Your task to perform on an android device: Open the calendar app, open the side menu, and click the "Day" option Image 0: 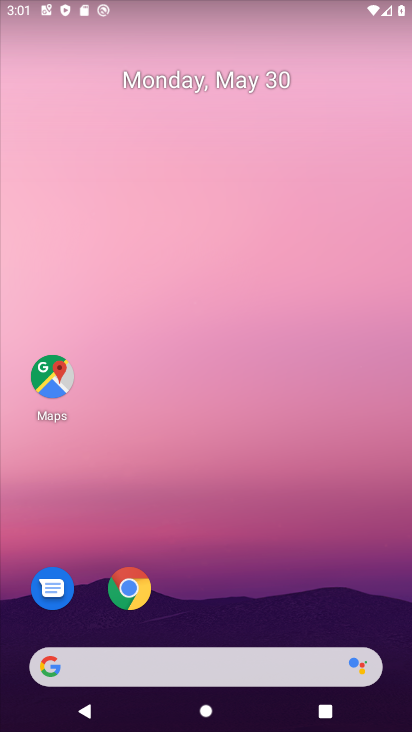
Step 0: drag from (251, 557) to (237, 21)
Your task to perform on an android device: Open the calendar app, open the side menu, and click the "Day" option Image 1: 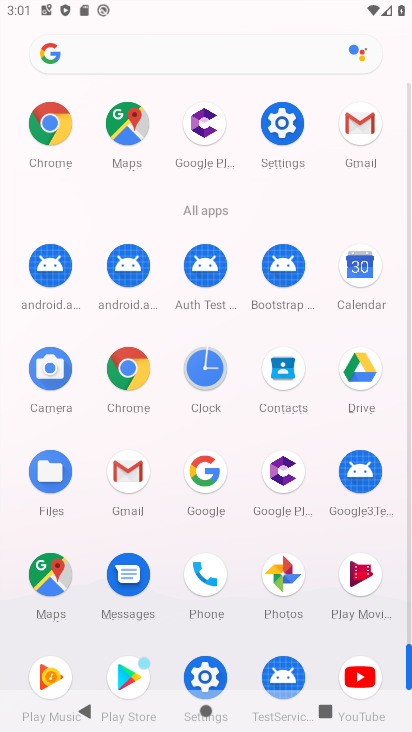
Step 1: drag from (17, 528) to (24, 200)
Your task to perform on an android device: Open the calendar app, open the side menu, and click the "Day" option Image 2: 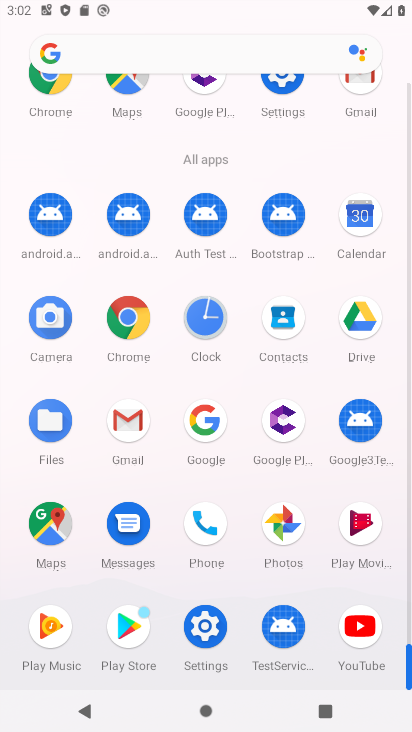
Step 2: drag from (18, 567) to (23, 277)
Your task to perform on an android device: Open the calendar app, open the side menu, and click the "Day" option Image 3: 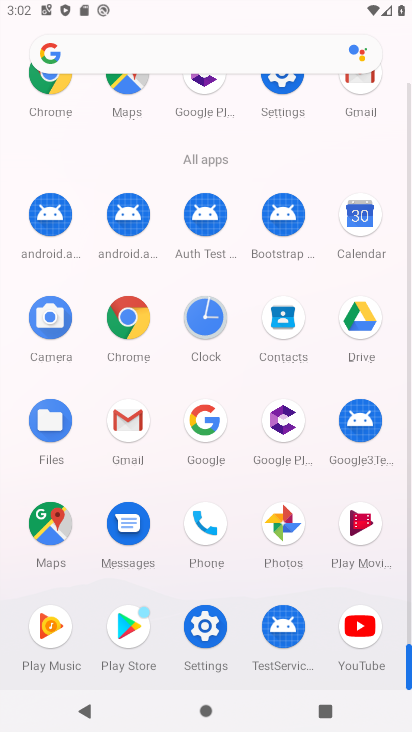
Step 3: click (359, 216)
Your task to perform on an android device: Open the calendar app, open the side menu, and click the "Day" option Image 4: 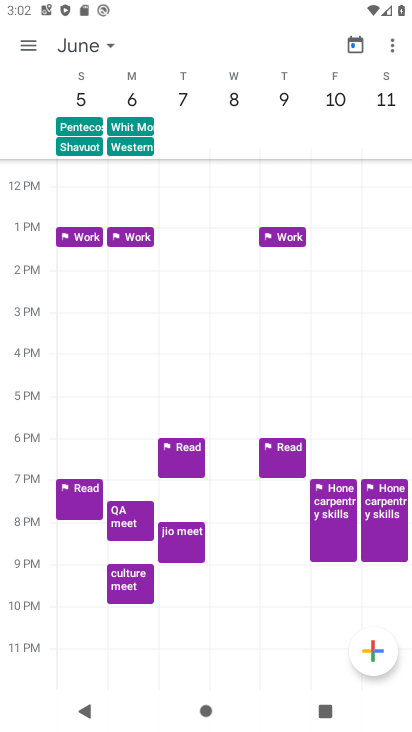
Step 4: click (26, 51)
Your task to perform on an android device: Open the calendar app, open the side menu, and click the "Day" option Image 5: 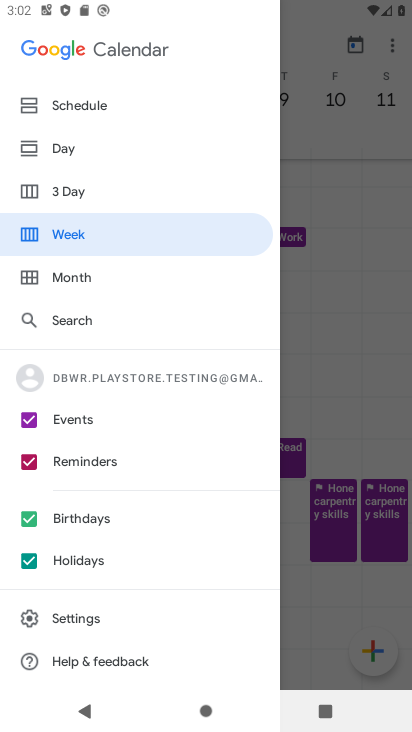
Step 5: click (73, 145)
Your task to perform on an android device: Open the calendar app, open the side menu, and click the "Day" option Image 6: 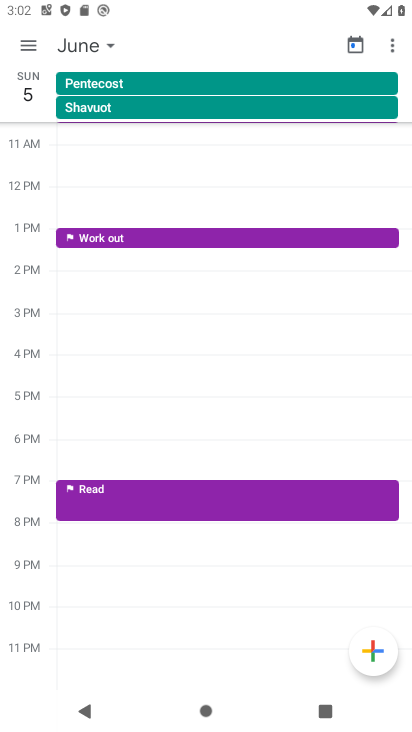
Step 6: click (24, 38)
Your task to perform on an android device: Open the calendar app, open the side menu, and click the "Day" option Image 7: 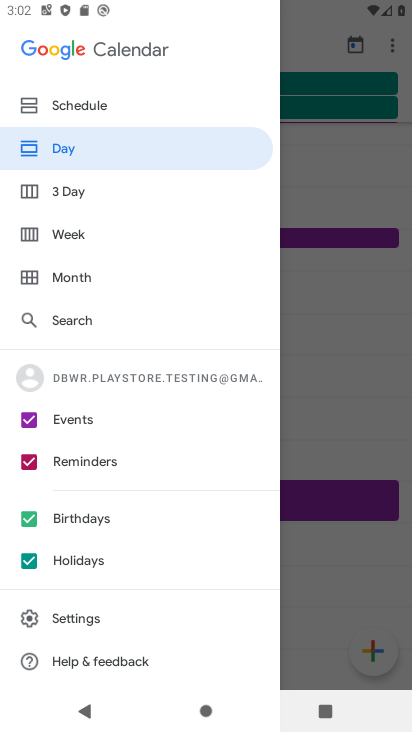
Step 7: click (101, 146)
Your task to perform on an android device: Open the calendar app, open the side menu, and click the "Day" option Image 8: 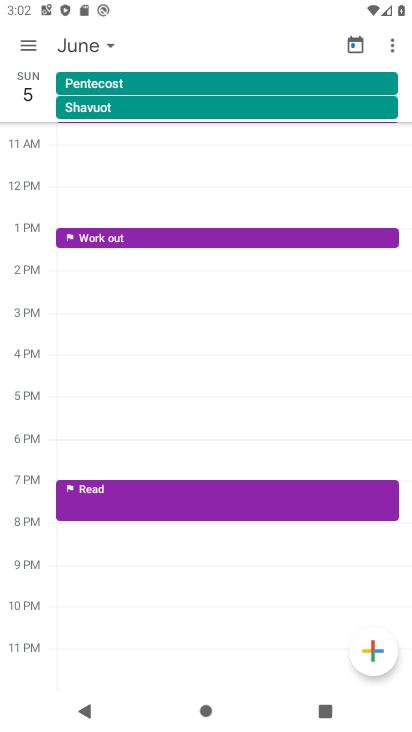
Step 8: click (355, 41)
Your task to perform on an android device: Open the calendar app, open the side menu, and click the "Day" option Image 9: 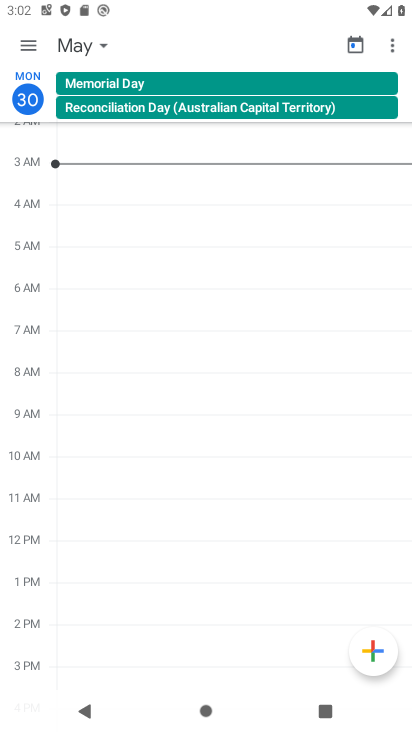
Step 9: click (24, 40)
Your task to perform on an android device: Open the calendar app, open the side menu, and click the "Day" option Image 10: 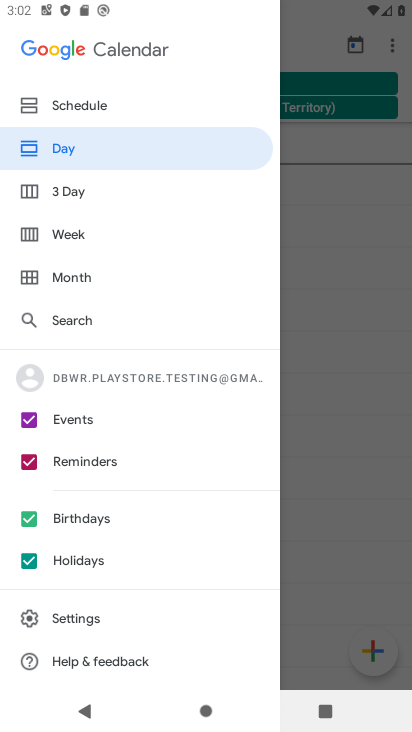
Step 10: click (63, 151)
Your task to perform on an android device: Open the calendar app, open the side menu, and click the "Day" option Image 11: 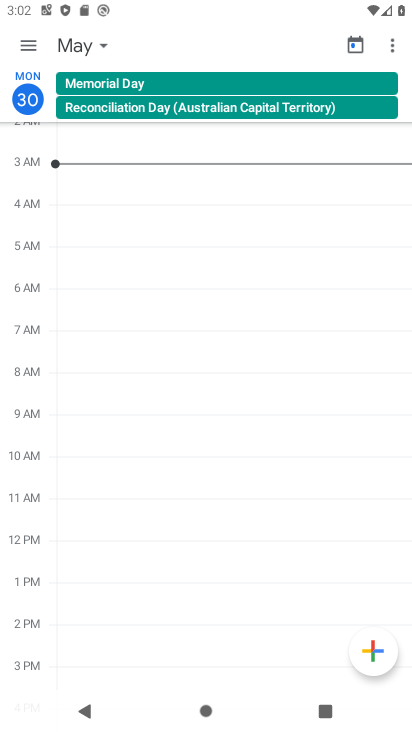
Step 11: task complete